Your task to perform on an android device: Show me the alarms in the clock app Image 0: 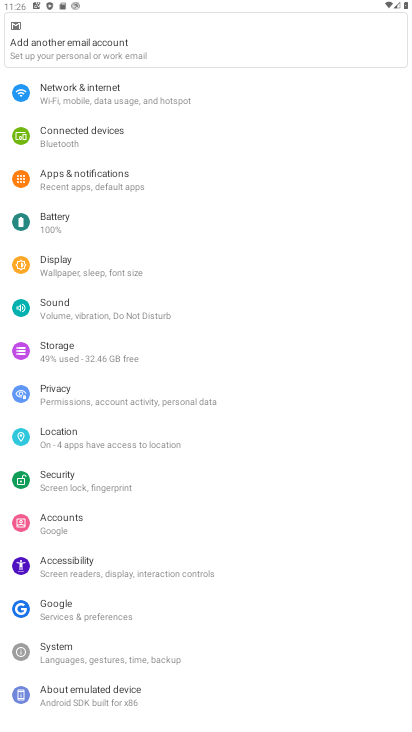
Step 0: press home button
Your task to perform on an android device: Show me the alarms in the clock app Image 1: 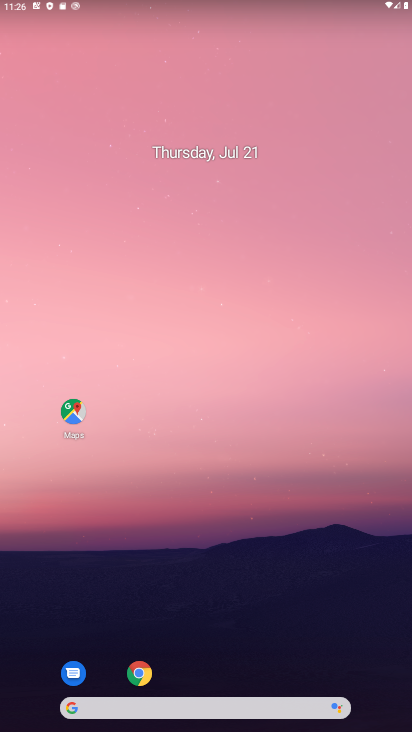
Step 1: drag from (206, 599) to (195, 167)
Your task to perform on an android device: Show me the alarms in the clock app Image 2: 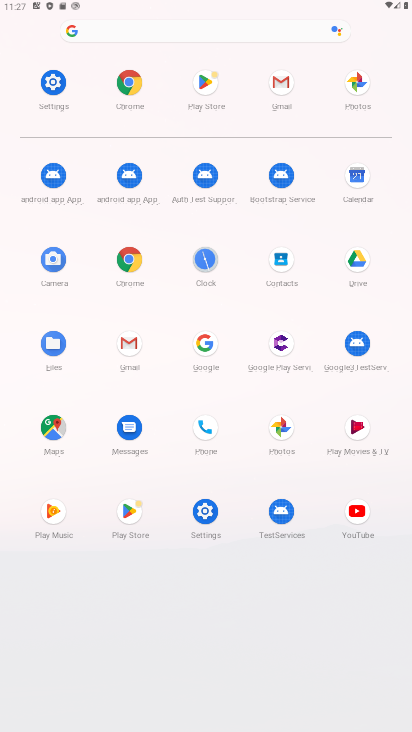
Step 2: click (213, 264)
Your task to perform on an android device: Show me the alarms in the clock app Image 3: 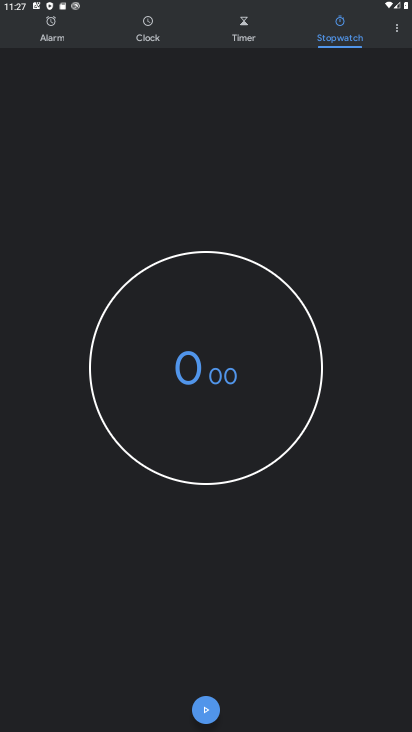
Step 3: click (51, 28)
Your task to perform on an android device: Show me the alarms in the clock app Image 4: 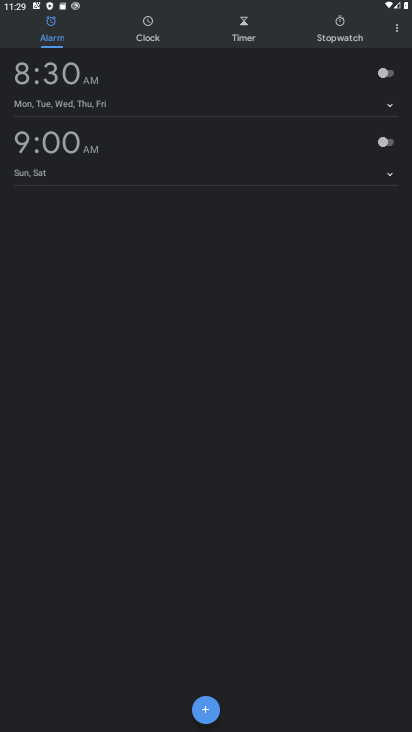
Step 4: task complete